Your task to perform on an android device: Turn off the flashlight Image 0: 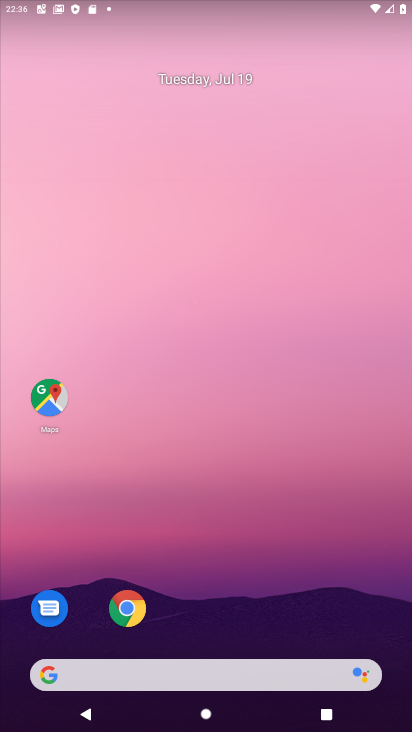
Step 0: drag from (272, 476) to (263, 156)
Your task to perform on an android device: Turn off the flashlight Image 1: 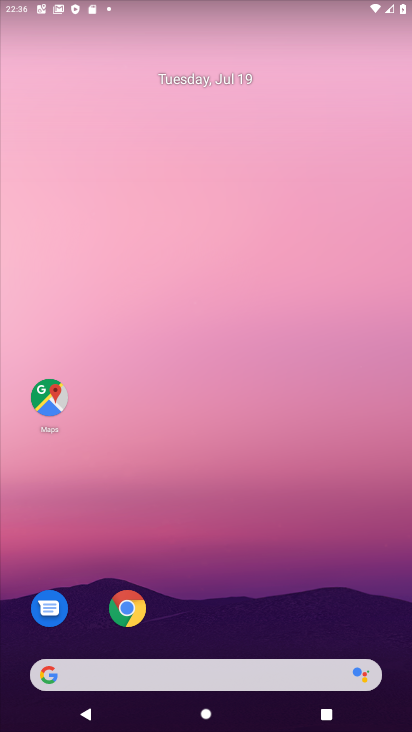
Step 1: drag from (287, 609) to (254, 122)
Your task to perform on an android device: Turn off the flashlight Image 2: 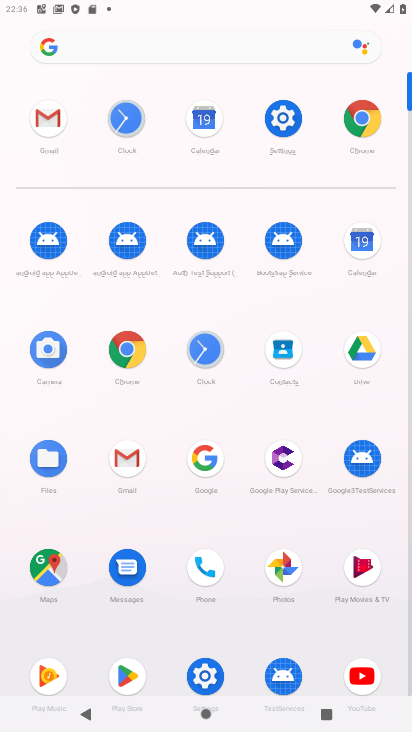
Step 2: click (279, 135)
Your task to perform on an android device: Turn off the flashlight Image 3: 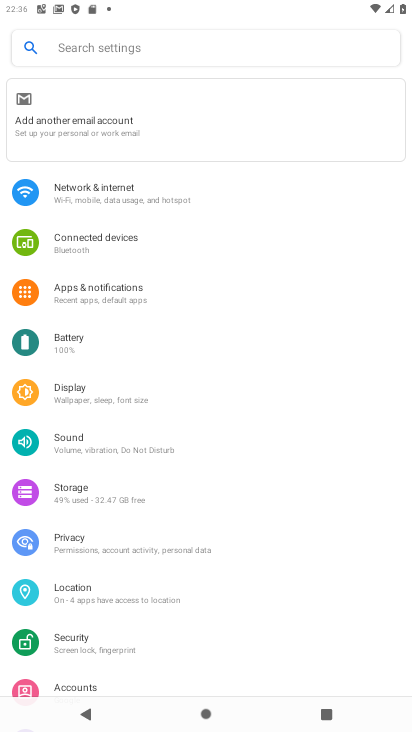
Step 3: click (90, 399)
Your task to perform on an android device: Turn off the flashlight Image 4: 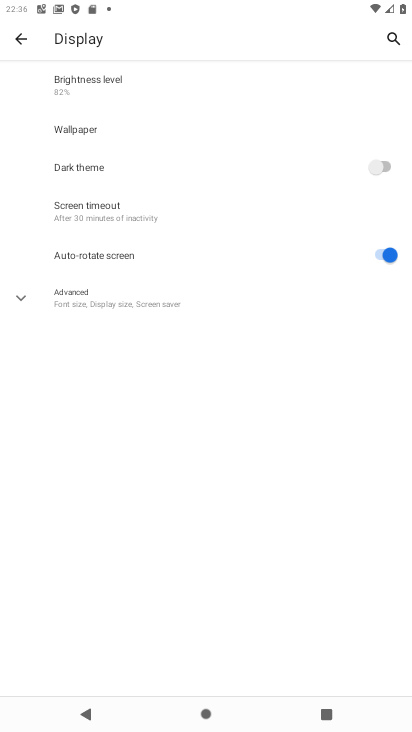
Step 4: click (86, 296)
Your task to perform on an android device: Turn off the flashlight Image 5: 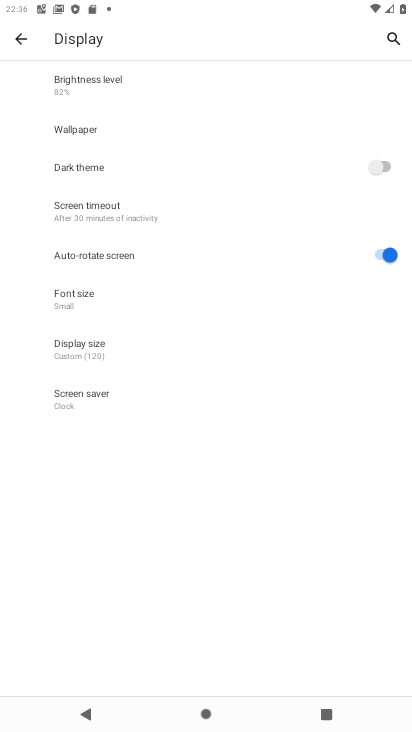
Step 5: task complete